Your task to perform on an android device: open a bookmark in the chrome app Image 0: 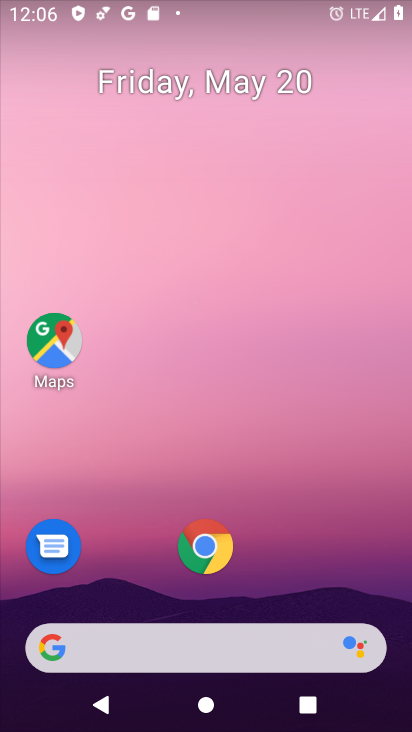
Step 0: click (208, 538)
Your task to perform on an android device: open a bookmark in the chrome app Image 1: 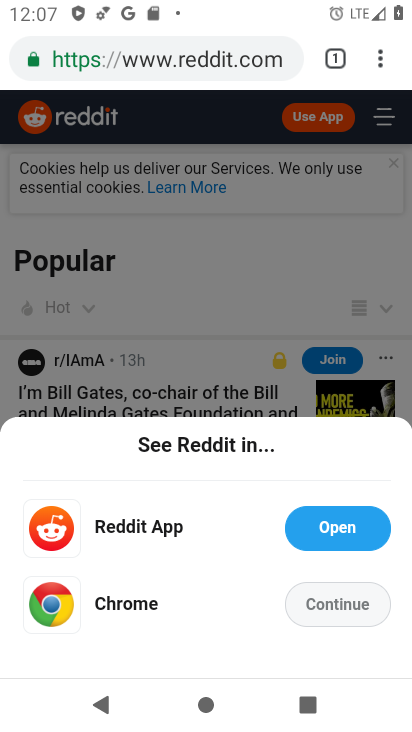
Step 1: task complete